Your task to perform on an android device: Search for vegetarian restaurants on Maps Image 0: 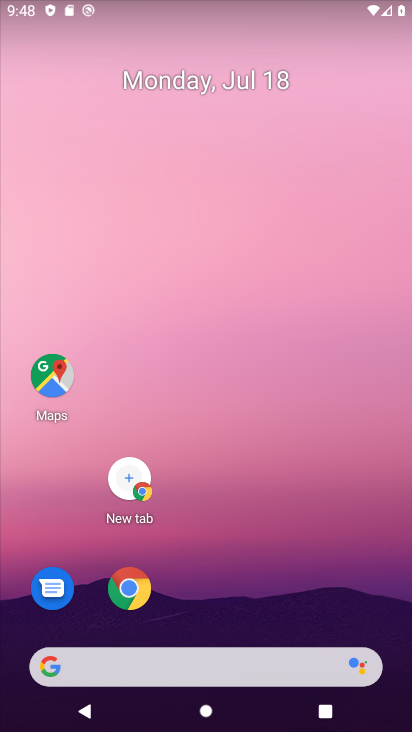
Step 0: click (44, 378)
Your task to perform on an android device: Search for vegetarian restaurants on Maps Image 1: 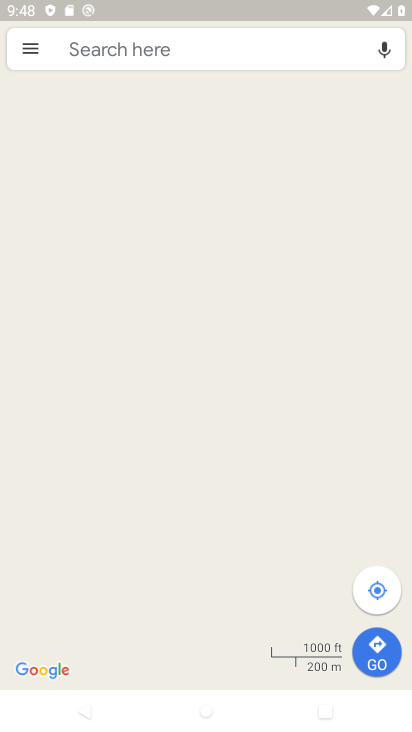
Step 1: click (167, 50)
Your task to perform on an android device: Search for vegetarian restaurants on Maps Image 2: 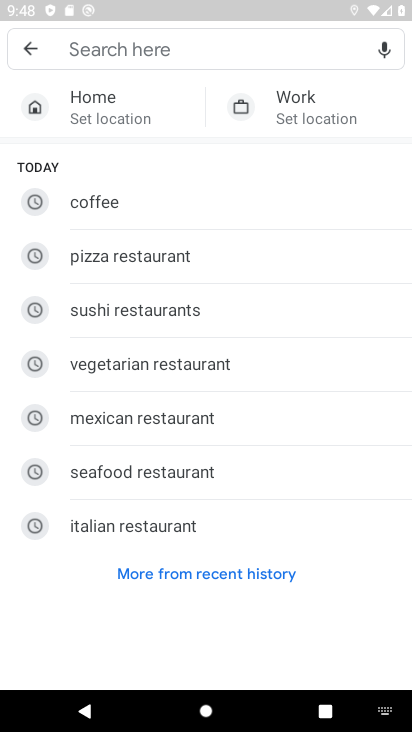
Step 2: type "ve"
Your task to perform on an android device: Search for vegetarian restaurants on Maps Image 3: 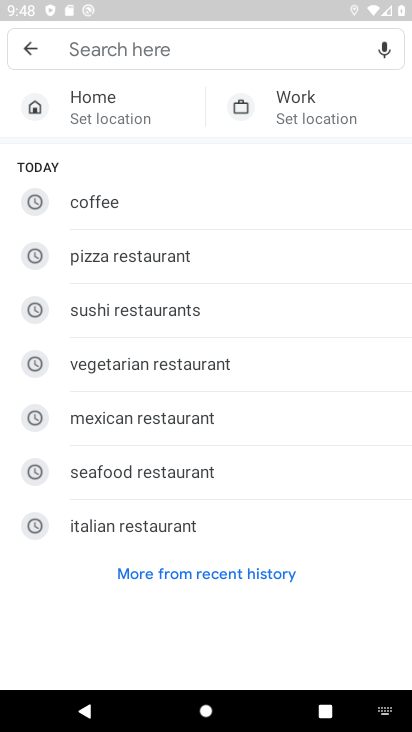
Step 3: click (212, 377)
Your task to perform on an android device: Search for vegetarian restaurants on Maps Image 4: 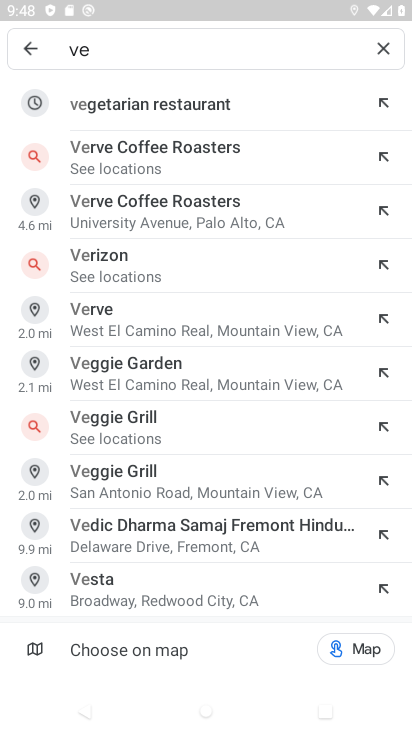
Step 4: click (198, 114)
Your task to perform on an android device: Search for vegetarian restaurants on Maps Image 5: 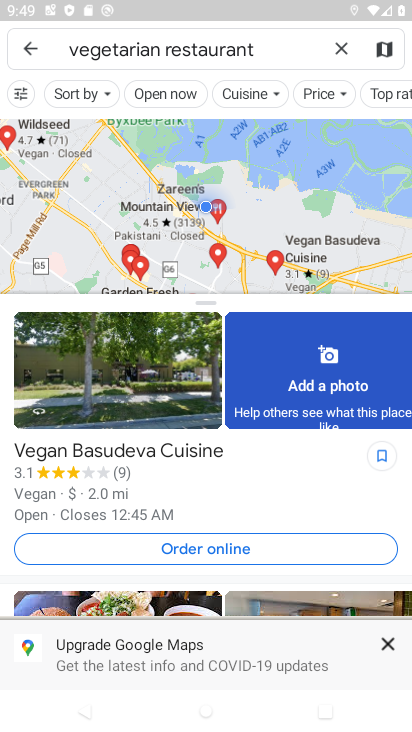
Step 5: task complete